Your task to perform on an android device: all mails in gmail Image 0: 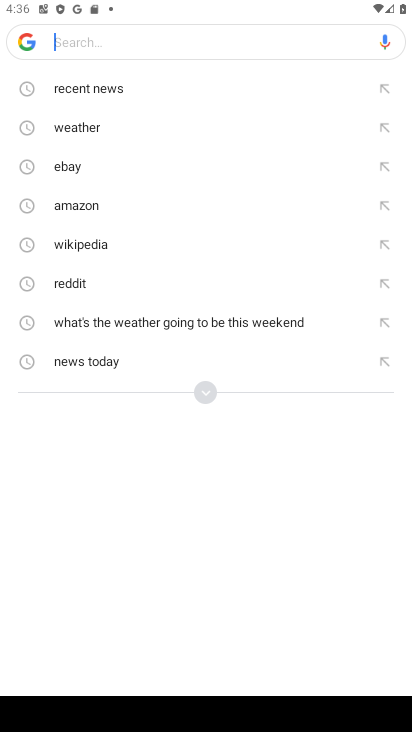
Step 0: press home button
Your task to perform on an android device: all mails in gmail Image 1: 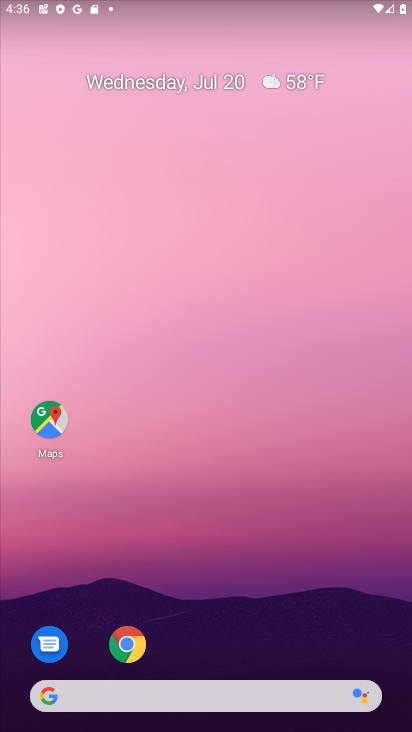
Step 1: drag from (216, 639) to (352, 13)
Your task to perform on an android device: all mails in gmail Image 2: 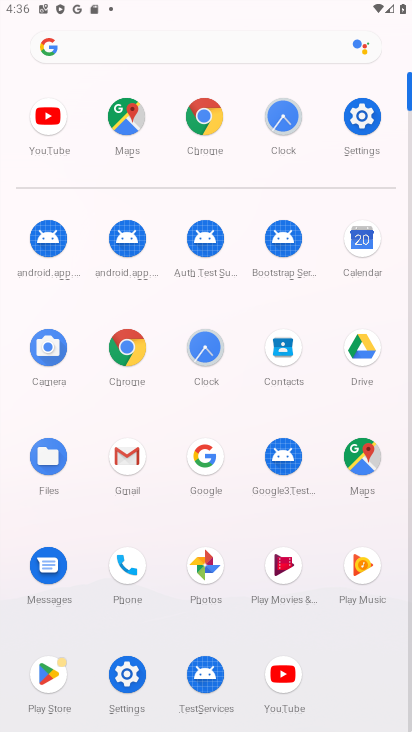
Step 2: click (113, 460)
Your task to perform on an android device: all mails in gmail Image 3: 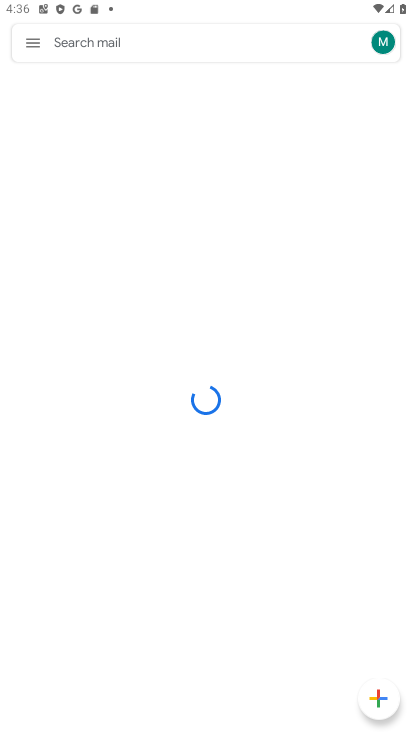
Step 3: click (30, 41)
Your task to perform on an android device: all mails in gmail Image 4: 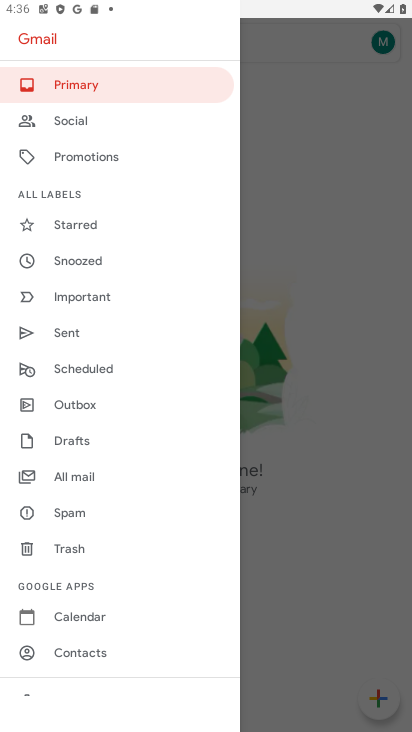
Step 4: click (70, 482)
Your task to perform on an android device: all mails in gmail Image 5: 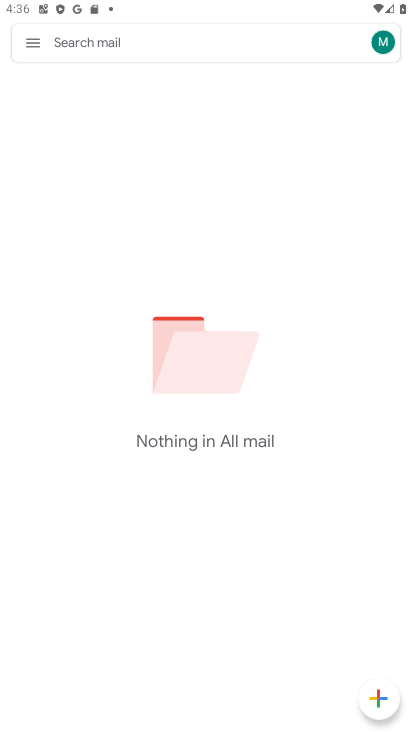
Step 5: task complete